Your task to perform on an android device: Go to privacy settings Image 0: 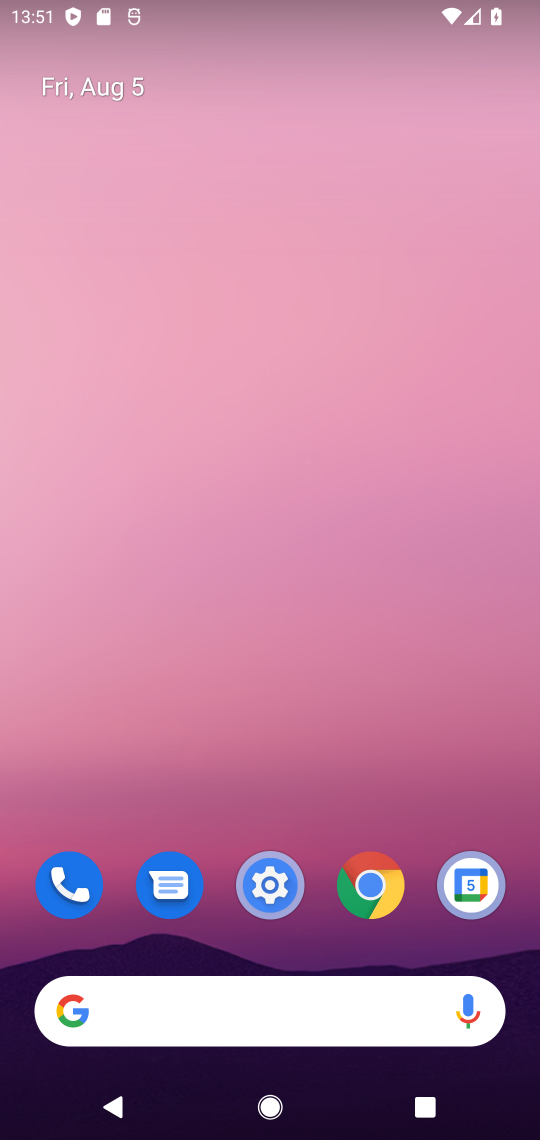
Step 0: click (268, 899)
Your task to perform on an android device: Go to privacy settings Image 1: 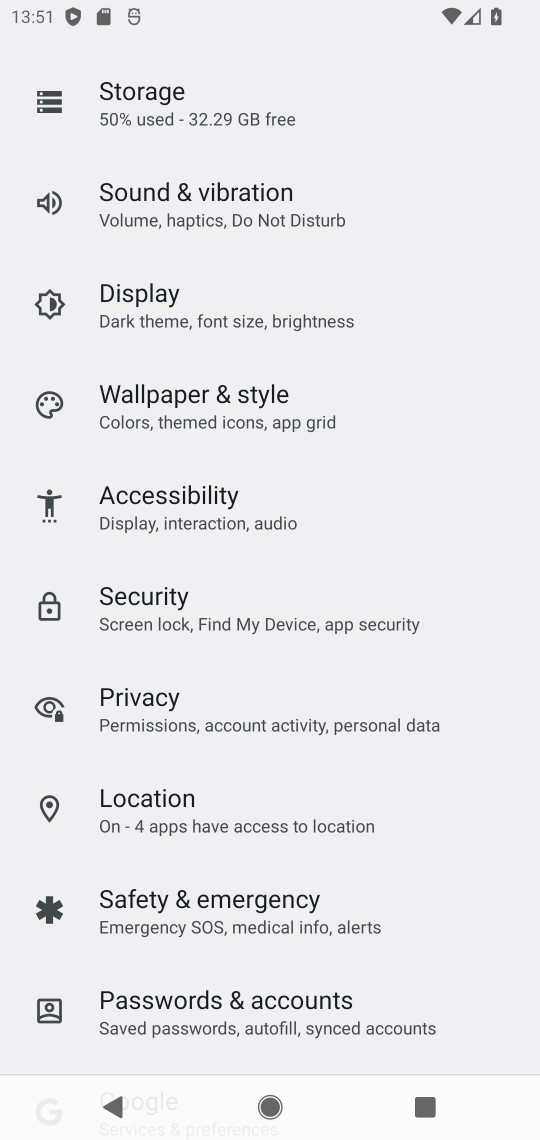
Step 1: click (276, 708)
Your task to perform on an android device: Go to privacy settings Image 2: 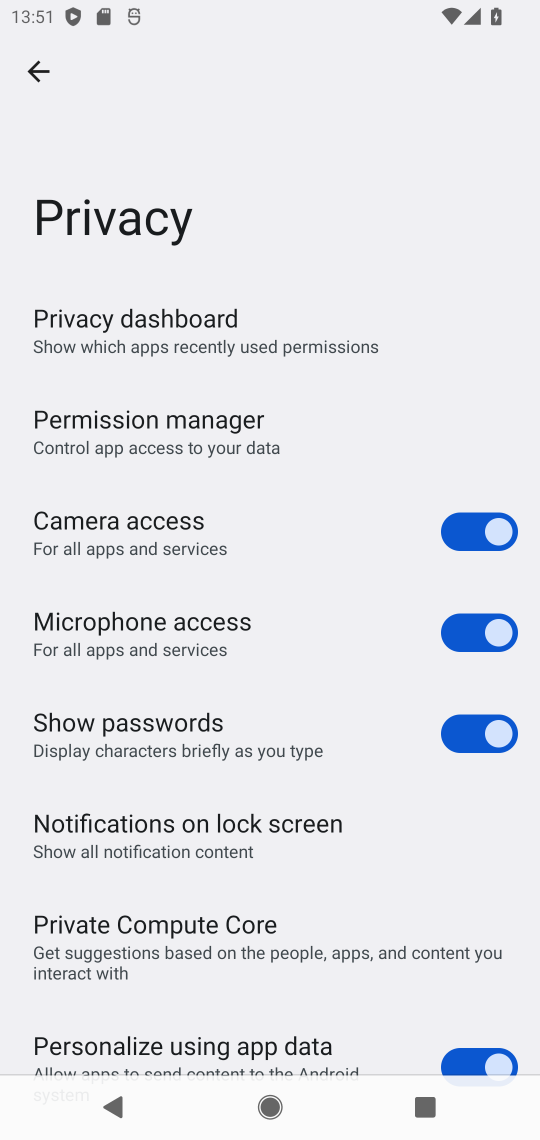
Step 2: task complete